Your task to perform on an android device: Search for rayovac triple a on ebay.com, select the first entry, add it to the cart, then select checkout. Image 0: 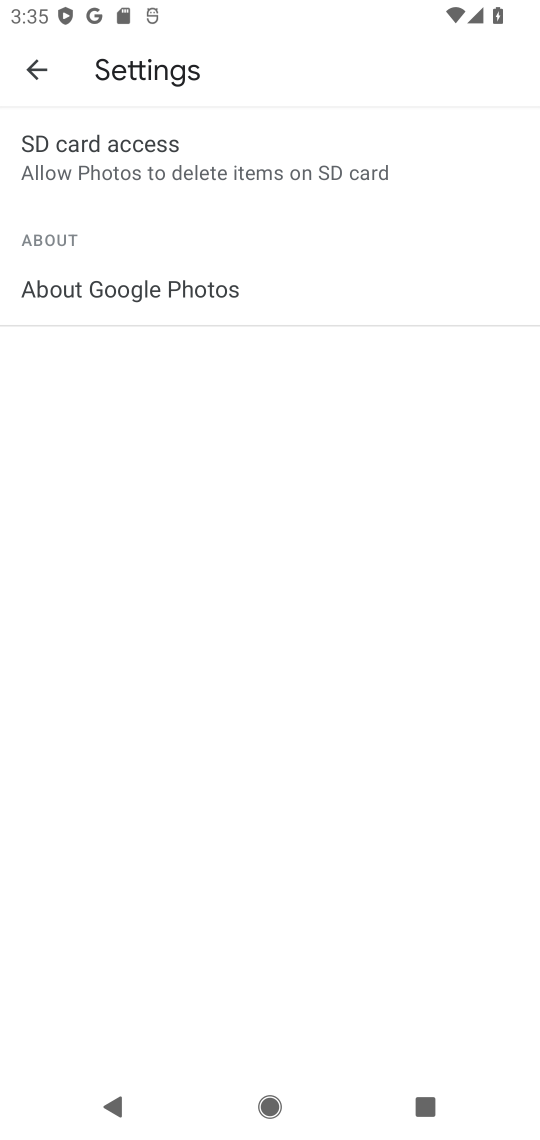
Step 0: press home button
Your task to perform on an android device: Search for rayovac triple a on ebay.com, select the first entry, add it to the cart, then select checkout. Image 1: 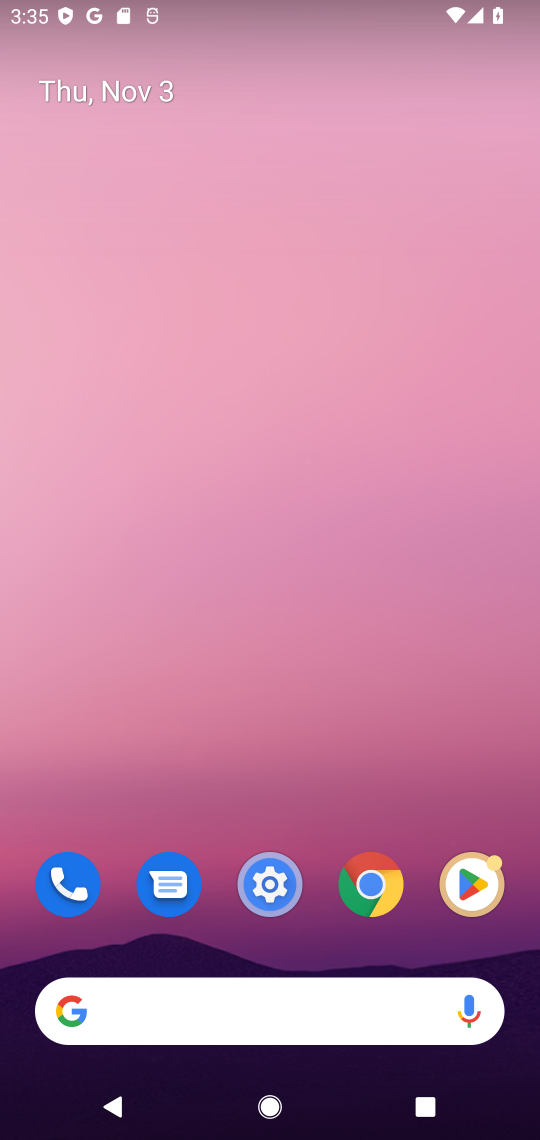
Step 1: click (109, 1002)
Your task to perform on an android device: Search for rayovac triple a on ebay.com, select the first entry, add it to the cart, then select checkout. Image 2: 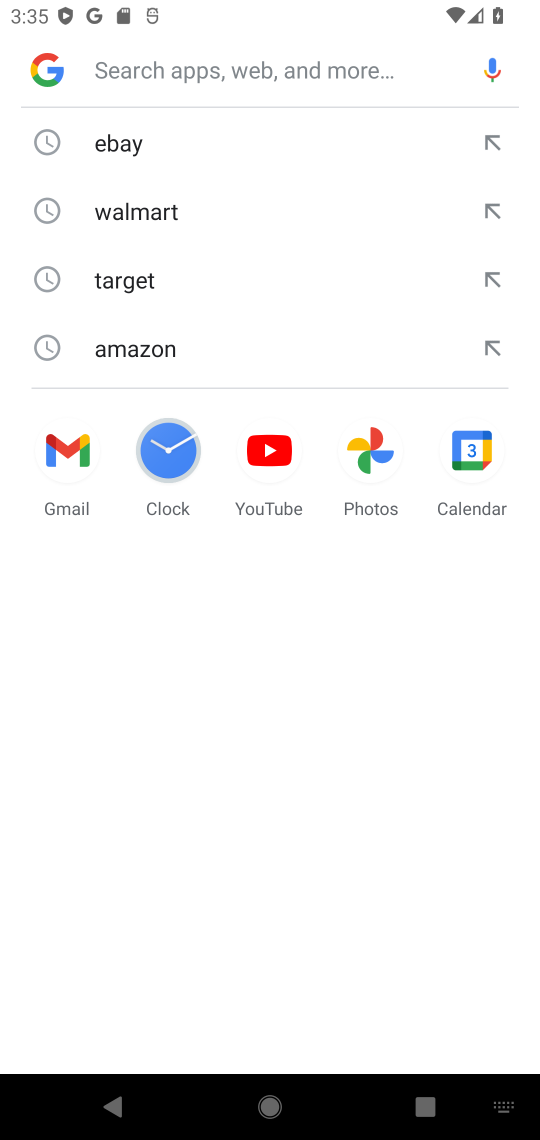
Step 2: type "ebay.com"
Your task to perform on an android device: Search for rayovac triple a on ebay.com, select the first entry, add it to the cart, then select checkout. Image 3: 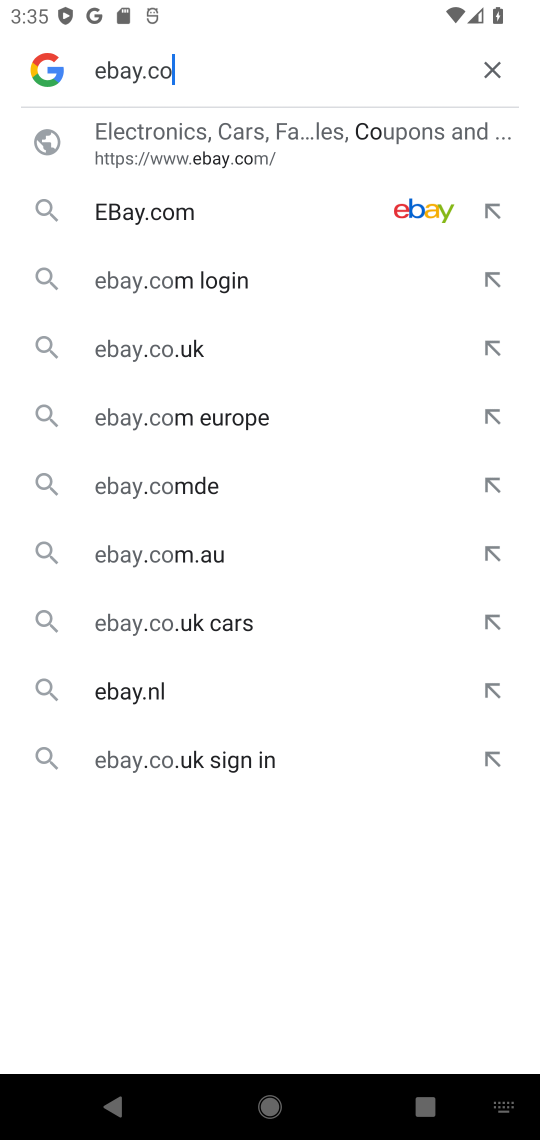
Step 3: press enter
Your task to perform on an android device: Search for rayovac triple a on ebay.com, select the first entry, add it to the cart, then select checkout. Image 4: 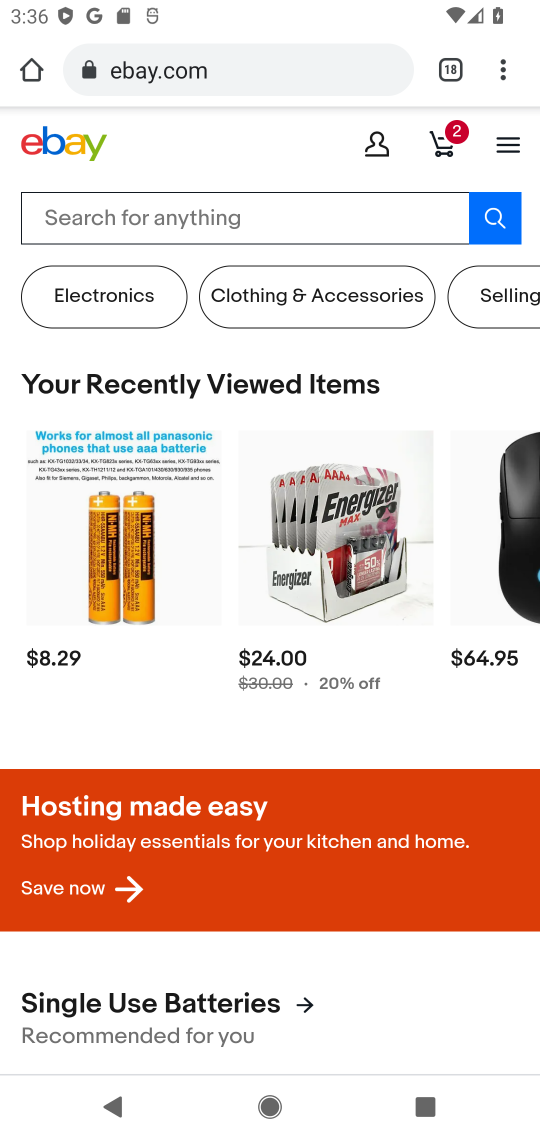
Step 4: click (64, 212)
Your task to perform on an android device: Search for rayovac triple a on ebay.com, select the first entry, add it to the cart, then select checkout. Image 5: 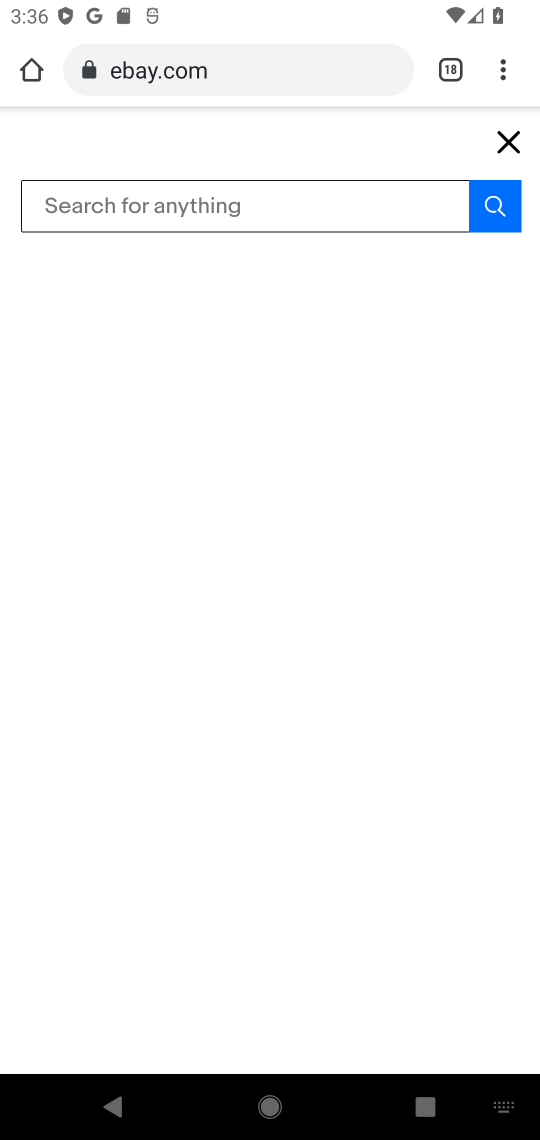
Step 5: type " rayovac triple"
Your task to perform on an android device: Search for rayovac triple a on ebay.com, select the first entry, add it to the cart, then select checkout. Image 6: 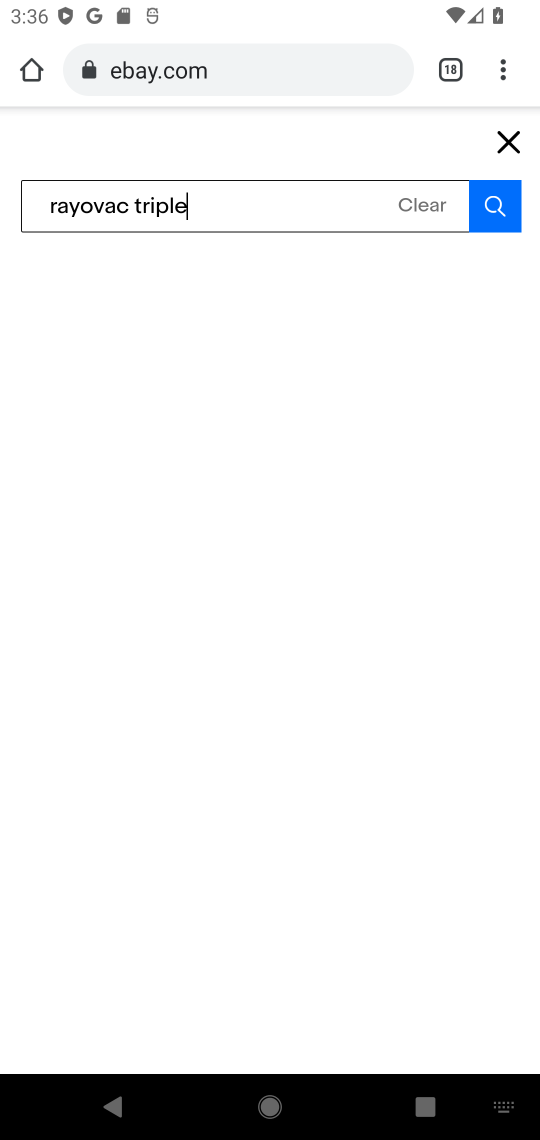
Step 6: press enter
Your task to perform on an android device: Search for rayovac triple a on ebay.com, select the first entry, add it to the cart, then select checkout. Image 7: 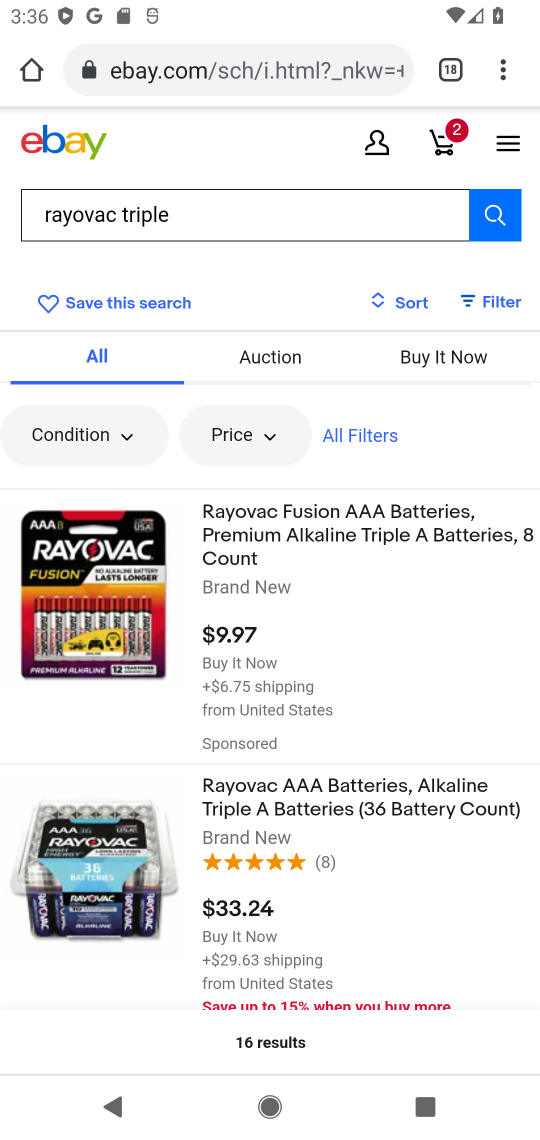
Step 7: drag from (368, 915) to (420, 637)
Your task to perform on an android device: Search for rayovac triple a on ebay.com, select the first entry, add it to the cart, then select checkout. Image 8: 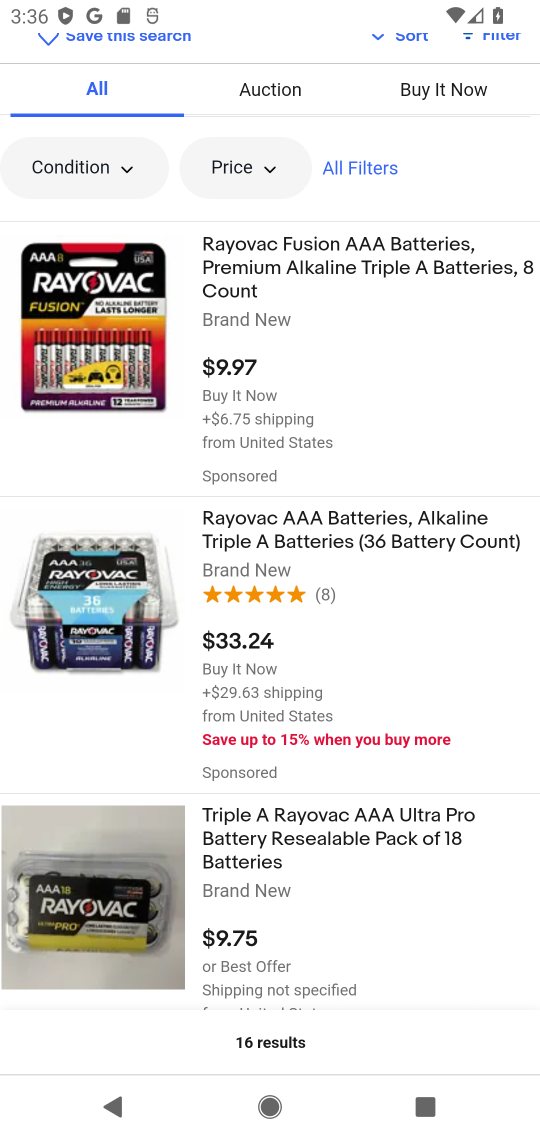
Step 8: click (253, 262)
Your task to perform on an android device: Search for rayovac triple a on ebay.com, select the first entry, add it to the cart, then select checkout. Image 9: 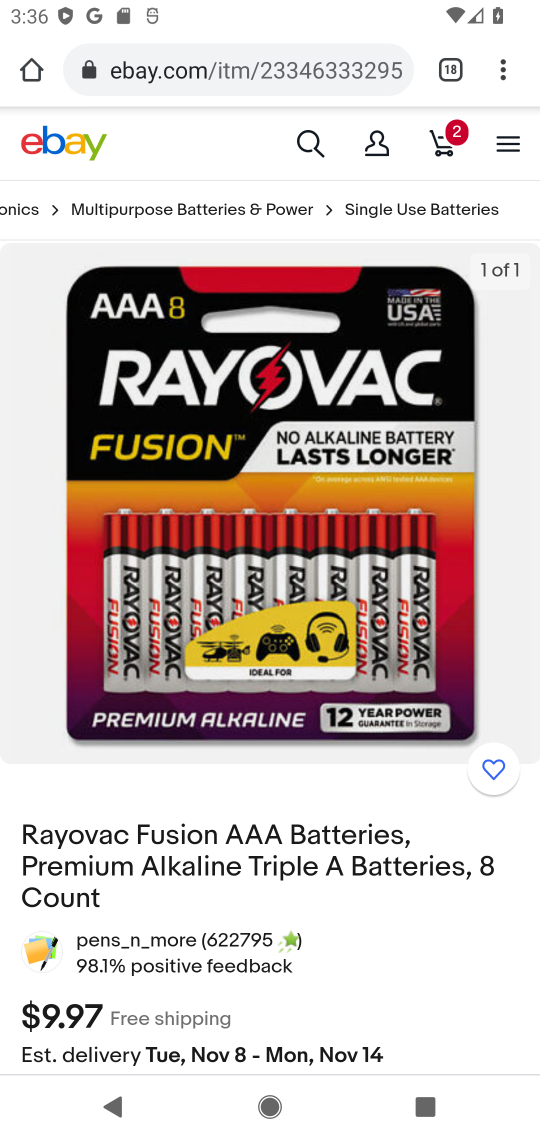
Step 9: drag from (313, 846) to (351, 460)
Your task to perform on an android device: Search for rayovac triple a on ebay.com, select the first entry, add it to the cart, then select checkout. Image 10: 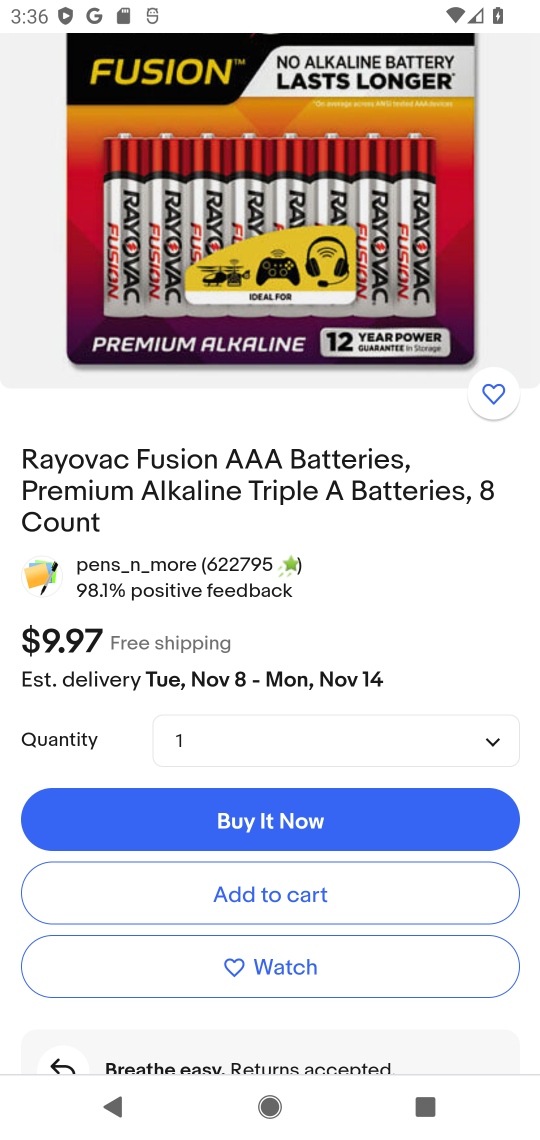
Step 10: drag from (369, 663) to (411, 297)
Your task to perform on an android device: Search for rayovac triple a on ebay.com, select the first entry, add it to the cart, then select checkout. Image 11: 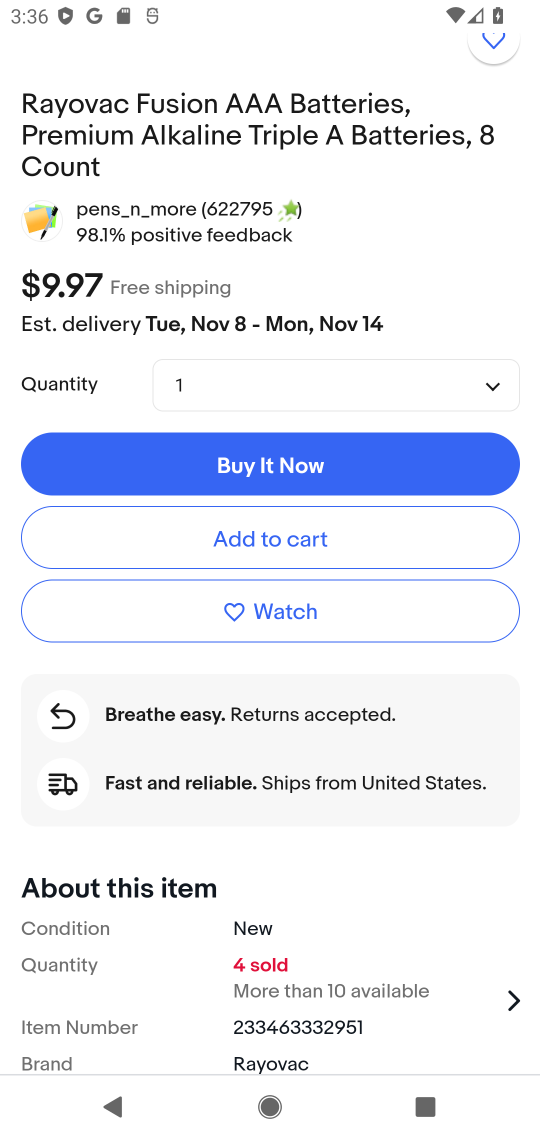
Step 11: click (257, 534)
Your task to perform on an android device: Search for rayovac triple a on ebay.com, select the first entry, add it to the cart, then select checkout. Image 12: 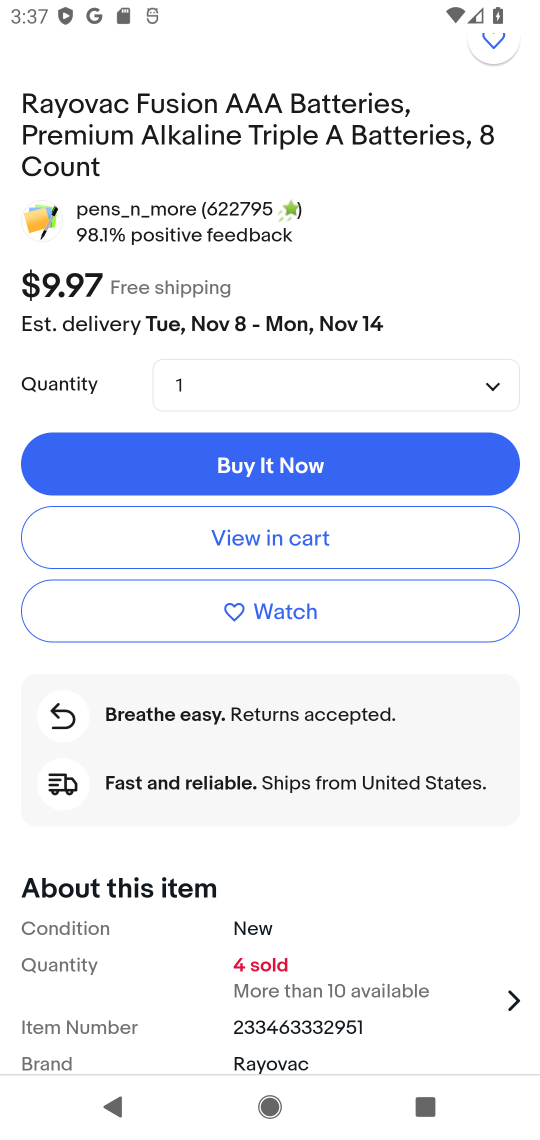
Step 12: click (257, 534)
Your task to perform on an android device: Search for rayovac triple a on ebay.com, select the first entry, add it to the cart, then select checkout. Image 13: 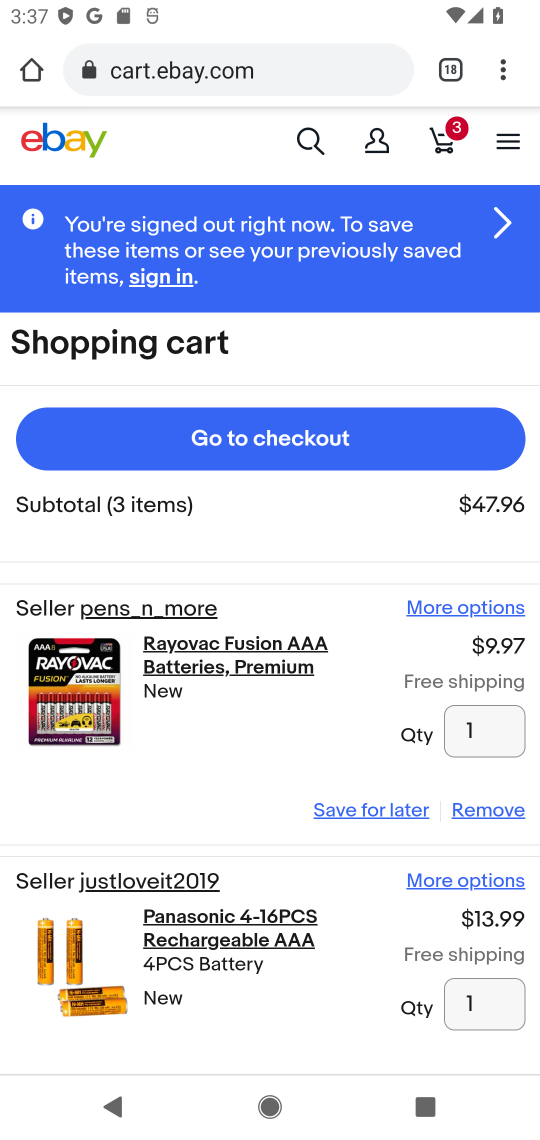
Step 13: click (255, 441)
Your task to perform on an android device: Search for rayovac triple a on ebay.com, select the first entry, add it to the cart, then select checkout. Image 14: 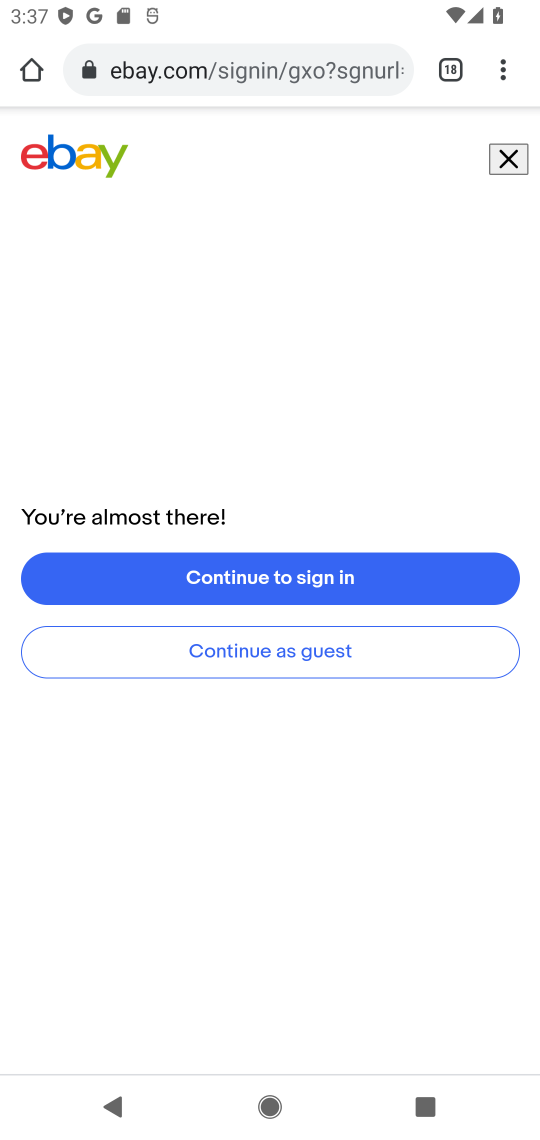
Step 14: task complete